Your task to perform on an android device: See recent photos Image 0: 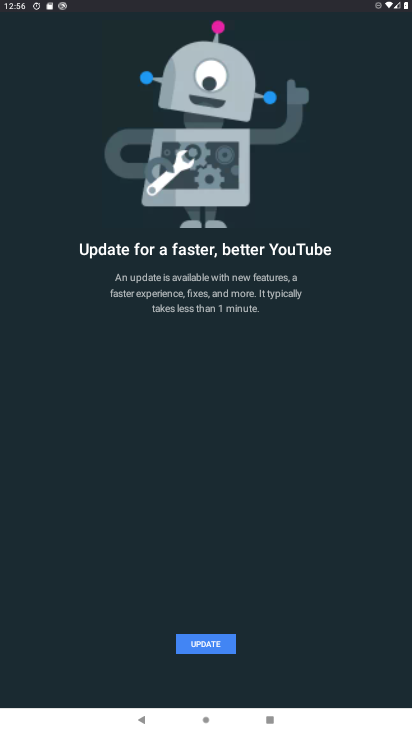
Step 0: press home button
Your task to perform on an android device: See recent photos Image 1: 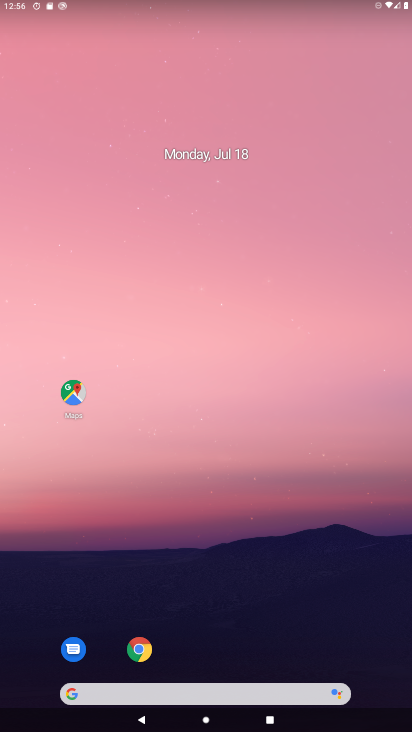
Step 1: drag from (21, 683) to (347, 20)
Your task to perform on an android device: See recent photos Image 2: 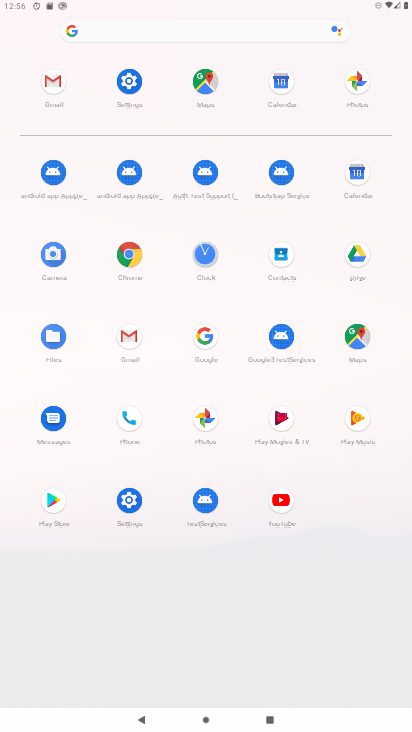
Step 2: click (209, 425)
Your task to perform on an android device: See recent photos Image 3: 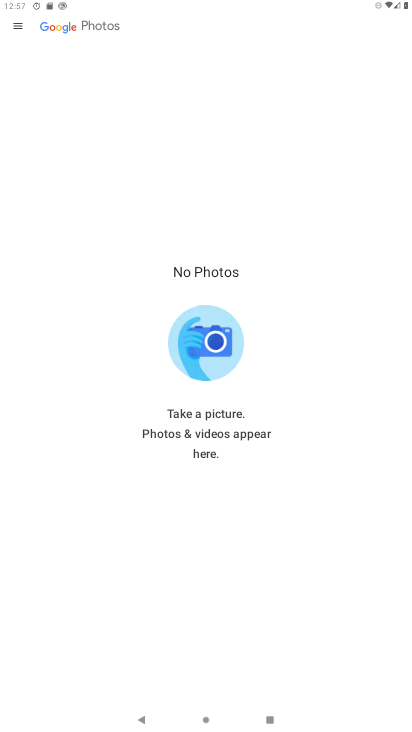
Step 3: task complete